Your task to perform on an android device: Turn on the flashlight Image 0: 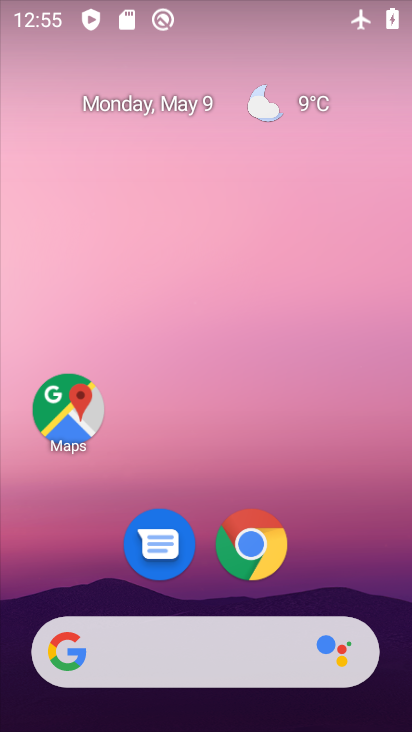
Step 0: drag from (333, 7) to (352, 425)
Your task to perform on an android device: Turn on the flashlight Image 1: 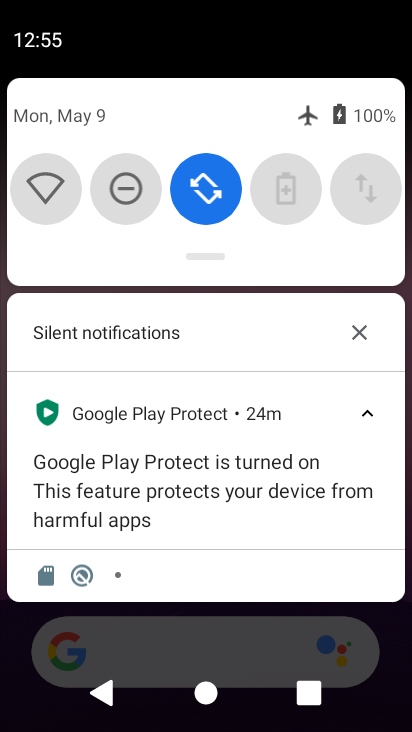
Step 1: drag from (301, 252) to (288, 561)
Your task to perform on an android device: Turn on the flashlight Image 2: 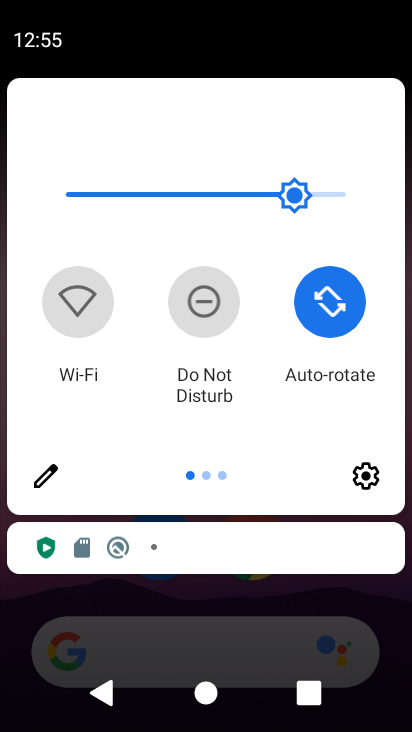
Step 2: drag from (372, 386) to (67, 379)
Your task to perform on an android device: Turn on the flashlight Image 3: 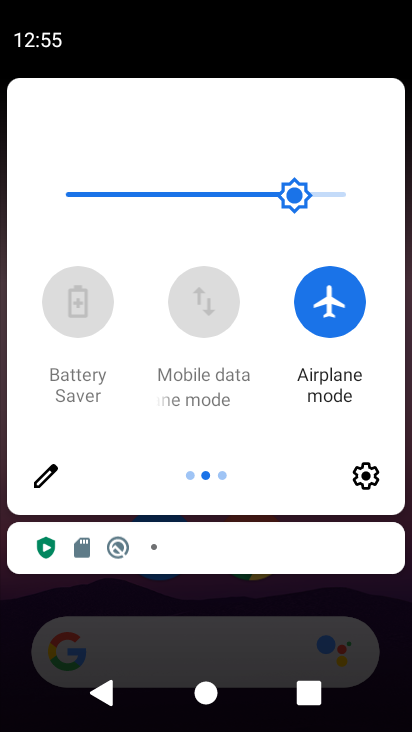
Step 3: click (320, 294)
Your task to perform on an android device: Turn on the flashlight Image 4: 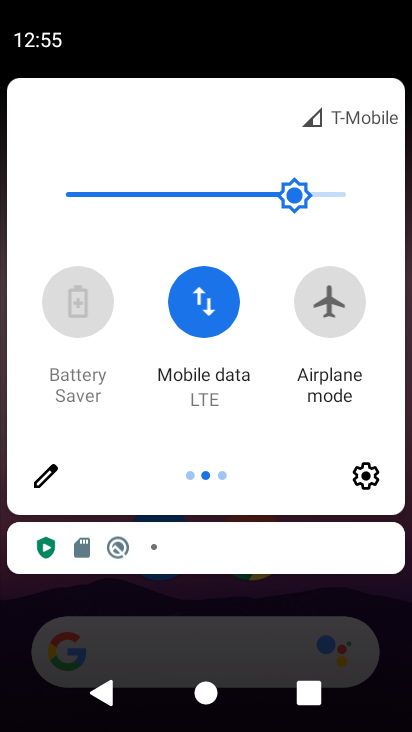
Step 4: click (49, 478)
Your task to perform on an android device: Turn on the flashlight Image 5: 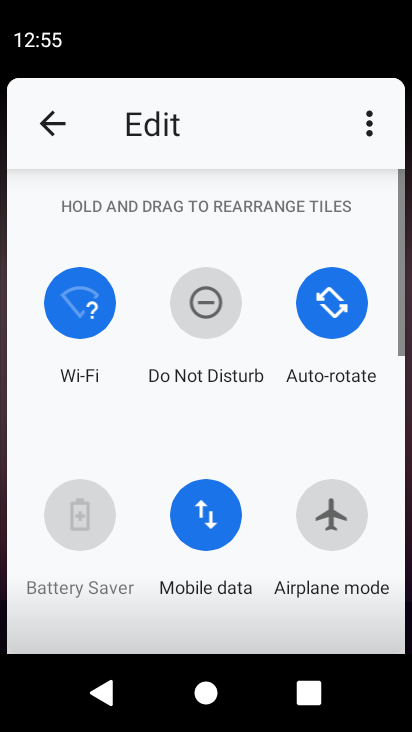
Step 5: task complete